Your task to perform on an android device: turn pop-ups off in chrome Image 0: 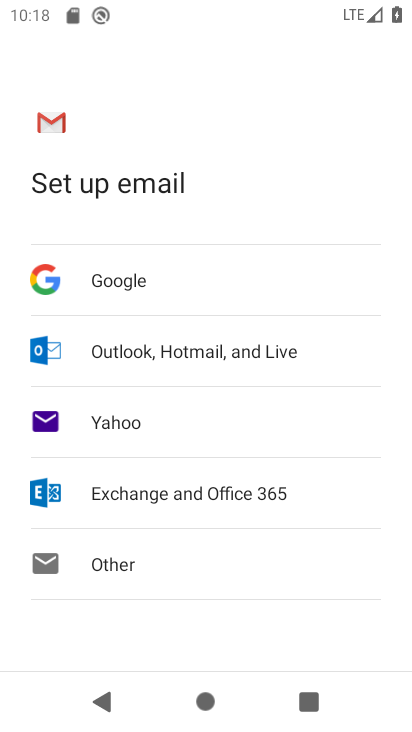
Step 0: press home button
Your task to perform on an android device: turn pop-ups off in chrome Image 1: 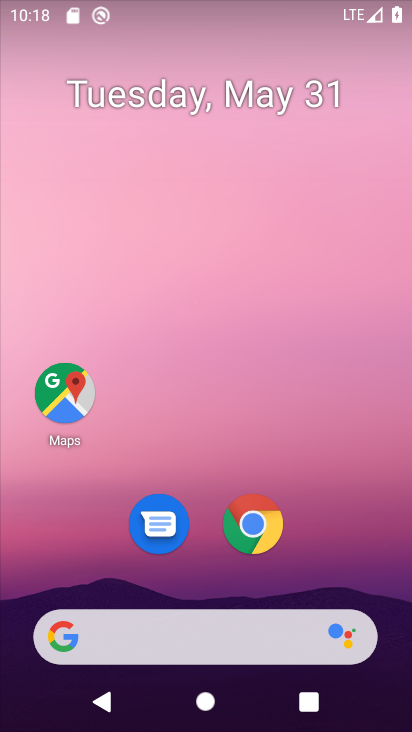
Step 1: click (271, 521)
Your task to perform on an android device: turn pop-ups off in chrome Image 2: 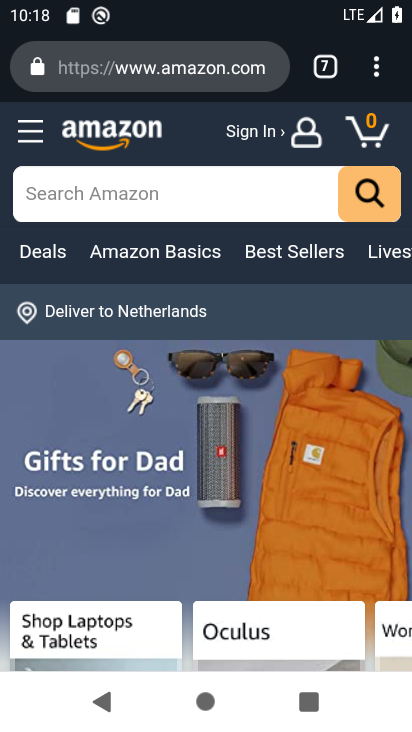
Step 2: click (377, 75)
Your task to perform on an android device: turn pop-ups off in chrome Image 3: 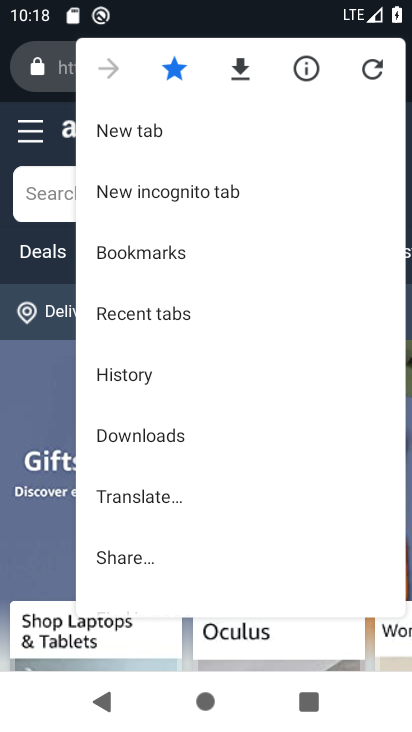
Step 3: drag from (251, 490) to (290, 127)
Your task to perform on an android device: turn pop-ups off in chrome Image 4: 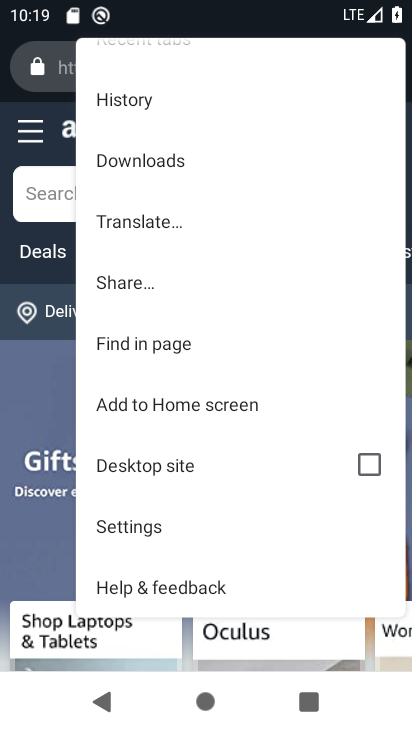
Step 4: drag from (222, 451) to (243, 240)
Your task to perform on an android device: turn pop-ups off in chrome Image 5: 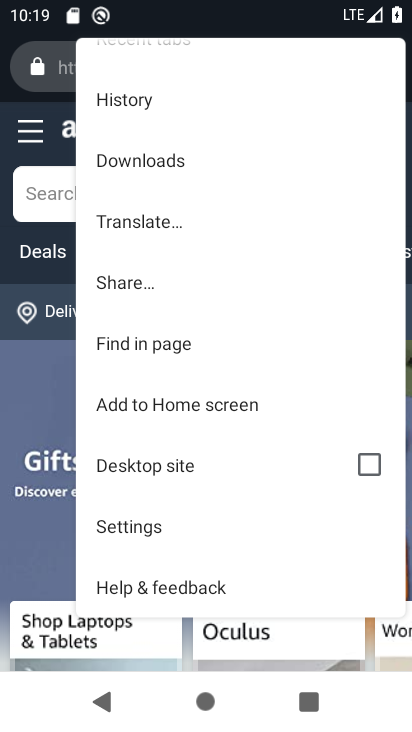
Step 5: click (207, 534)
Your task to perform on an android device: turn pop-ups off in chrome Image 6: 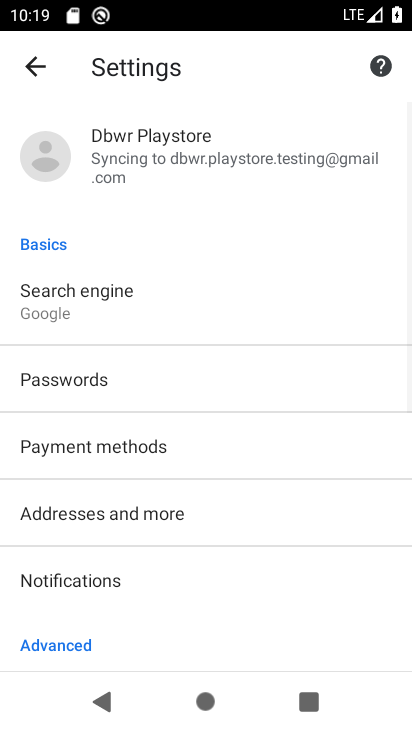
Step 6: drag from (271, 492) to (291, 180)
Your task to perform on an android device: turn pop-ups off in chrome Image 7: 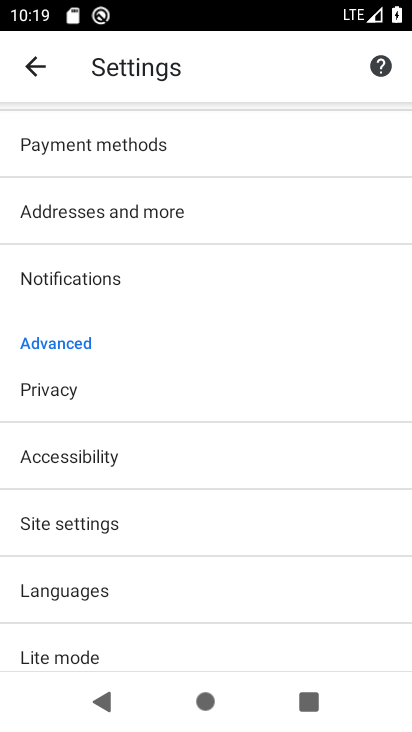
Step 7: click (157, 530)
Your task to perform on an android device: turn pop-ups off in chrome Image 8: 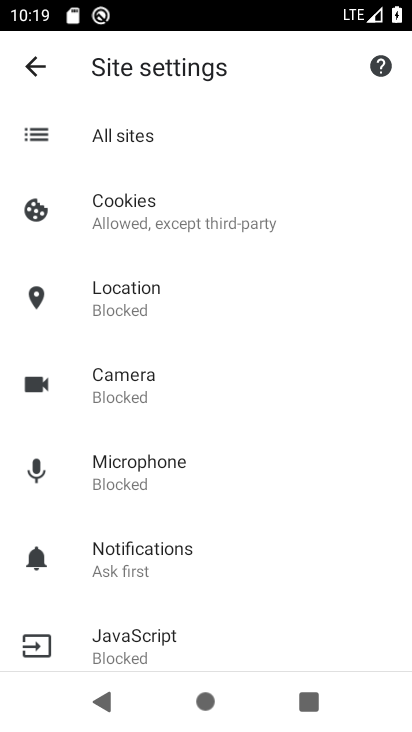
Step 8: drag from (202, 475) to (223, 230)
Your task to perform on an android device: turn pop-ups off in chrome Image 9: 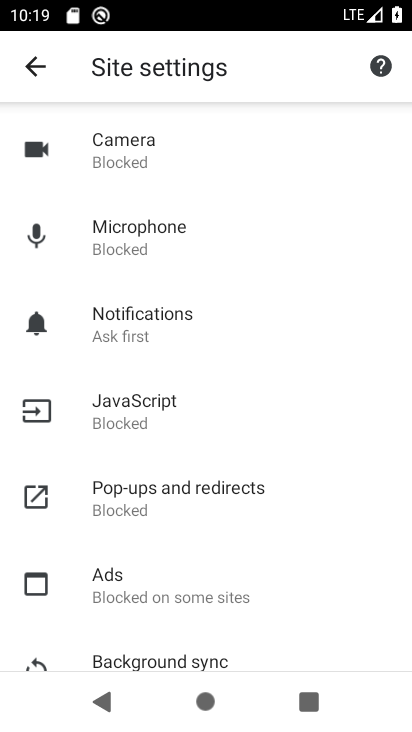
Step 9: click (199, 481)
Your task to perform on an android device: turn pop-ups off in chrome Image 10: 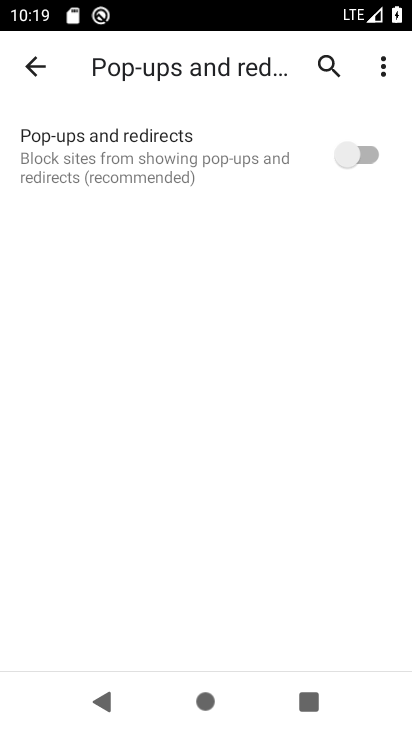
Step 10: task complete